Your task to perform on an android device: Open Reddit.com Image 0: 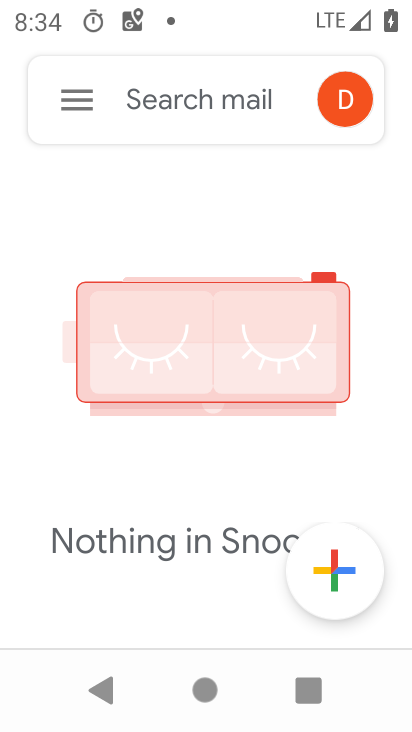
Step 0: drag from (198, 586) to (261, 163)
Your task to perform on an android device: Open Reddit.com Image 1: 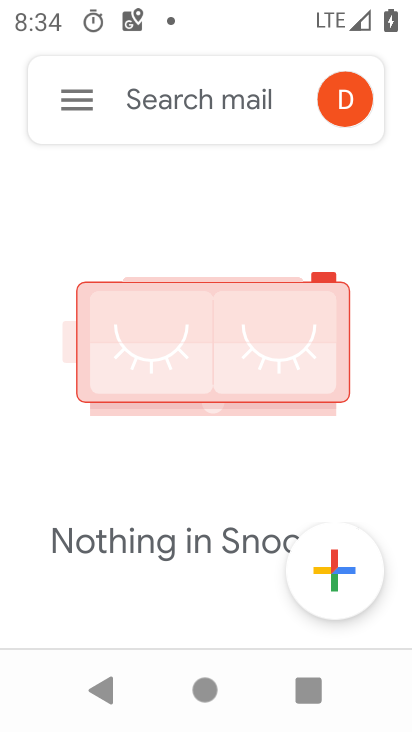
Step 1: click (189, 497)
Your task to perform on an android device: Open Reddit.com Image 2: 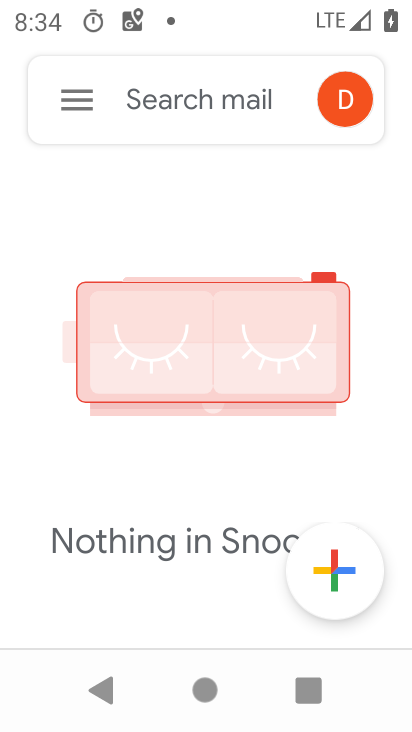
Step 2: click (184, 536)
Your task to perform on an android device: Open Reddit.com Image 3: 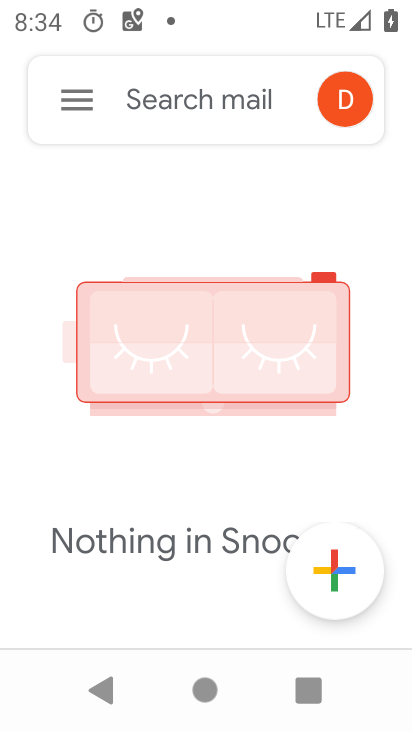
Step 3: click (77, 108)
Your task to perform on an android device: Open Reddit.com Image 4: 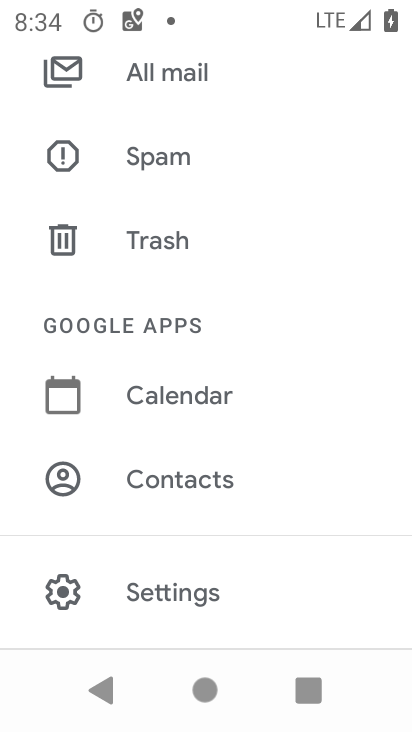
Step 4: click (210, 593)
Your task to perform on an android device: Open Reddit.com Image 5: 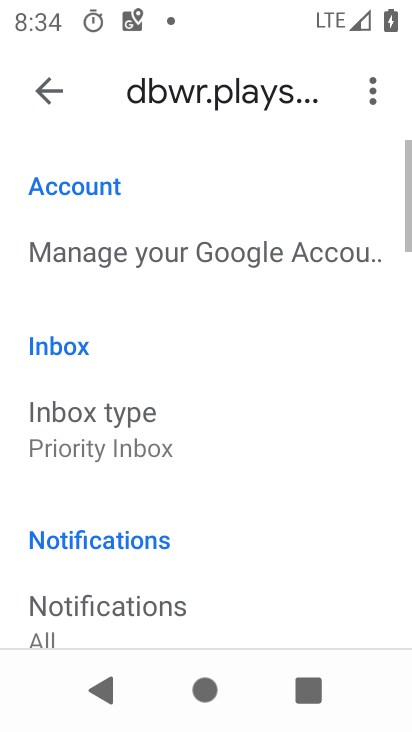
Step 5: drag from (188, 570) to (220, 198)
Your task to perform on an android device: Open Reddit.com Image 6: 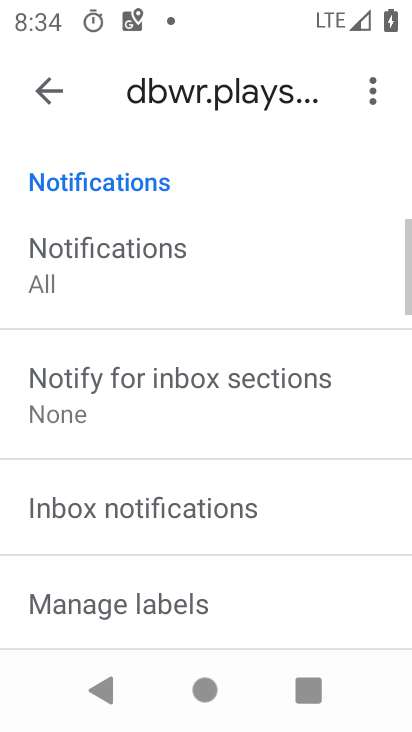
Step 6: drag from (233, 176) to (247, 620)
Your task to perform on an android device: Open Reddit.com Image 7: 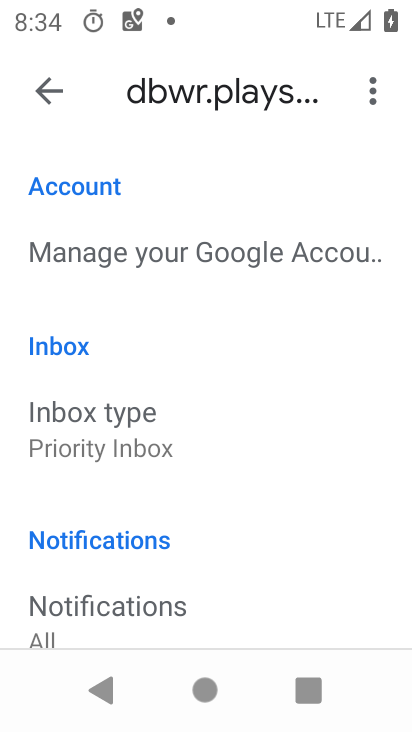
Step 7: drag from (192, 579) to (186, 94)
Your task to perform on an android device: Open Reddit.com Image 8: 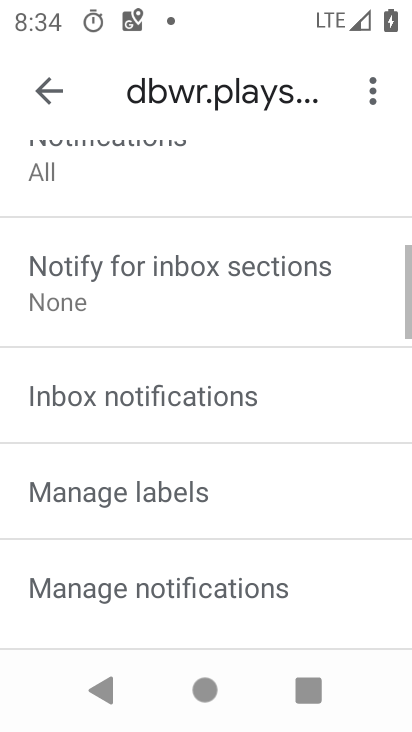
Step 8: drag from (201, 495) to (240, 211)
Your task to perform on an android device: Open Reddit.com Image 9: 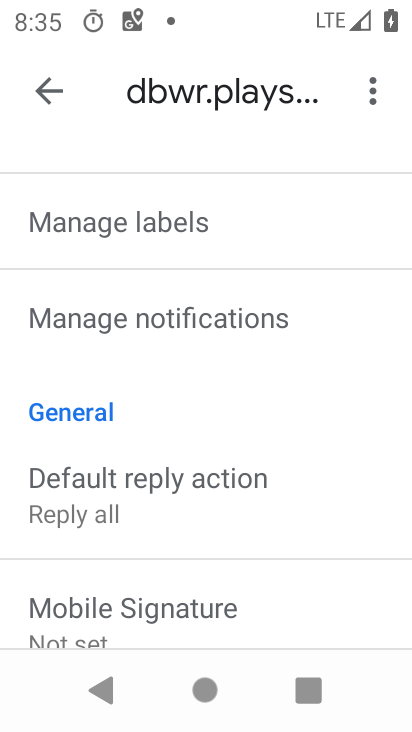
Step 9: drag from (217, 302) to (294, 706)
Your task to perform on an android device: Open Reddit.com Image 10: 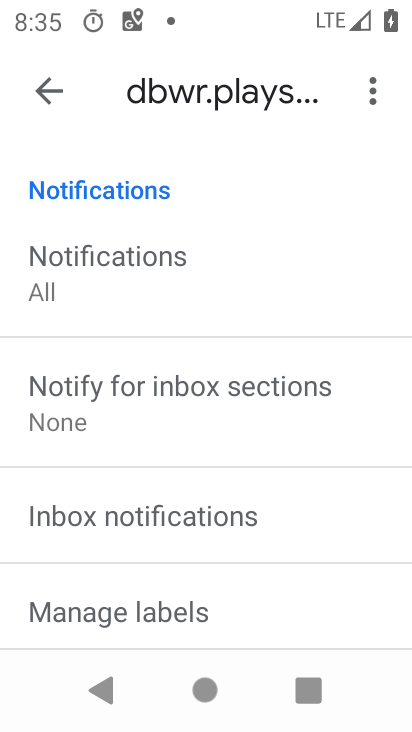
Step 10: drag from (204, 240) to (317, 624)
Your task to perform on an android device: Open Reddit.com Image 11: 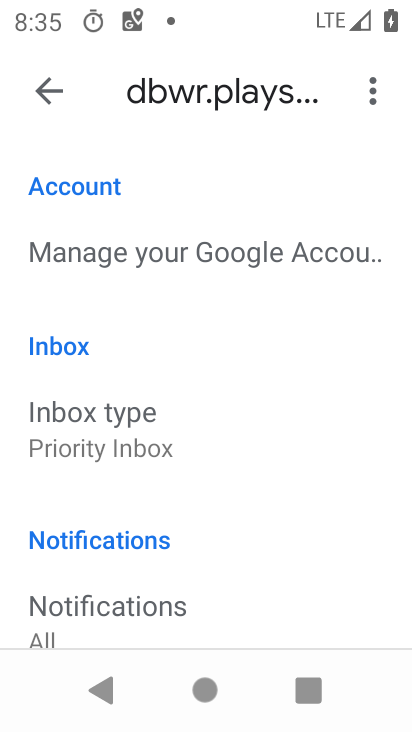
Step 11: drag from (268, 577) to (362, 286)
Your task to perform on an android device: Open Reddit.com Image 12: 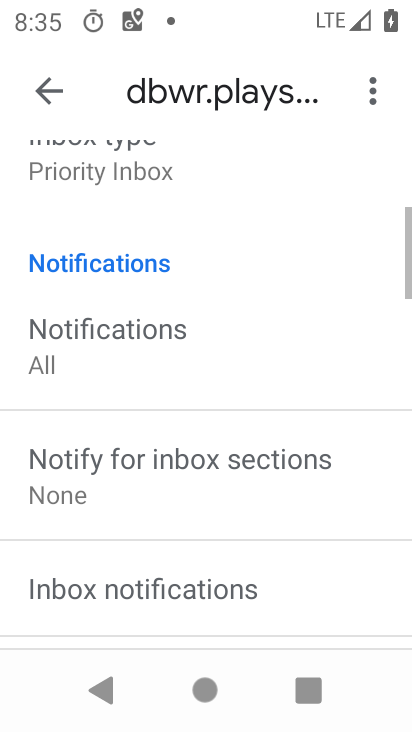
Step 12: press home button
Your task to perform on an android device: Open Reddit.com Image 13: 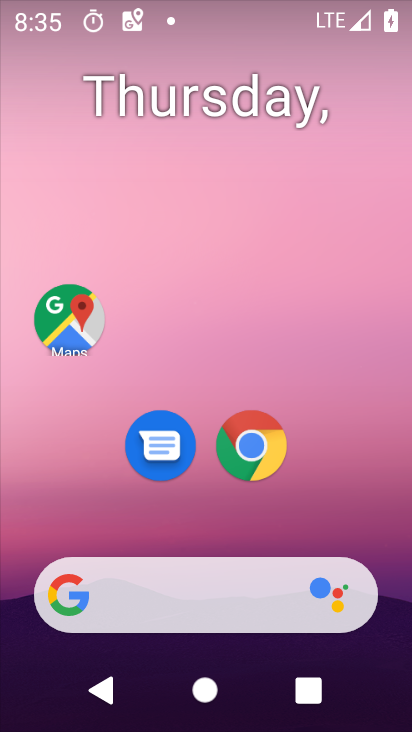
Step 13: drag from (214, 541) to (97, 27)
Your task to perform on an android device: Open Reddit.com Image 14: 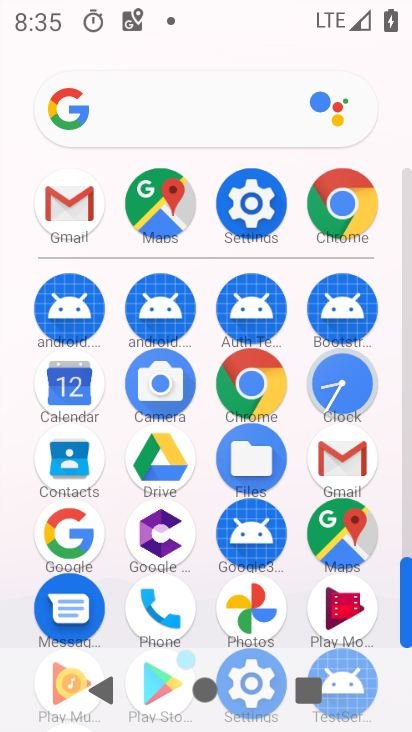
Step 14: click (200, 111)
Your task to perform on an android device: Open Reddit.com Image 15: 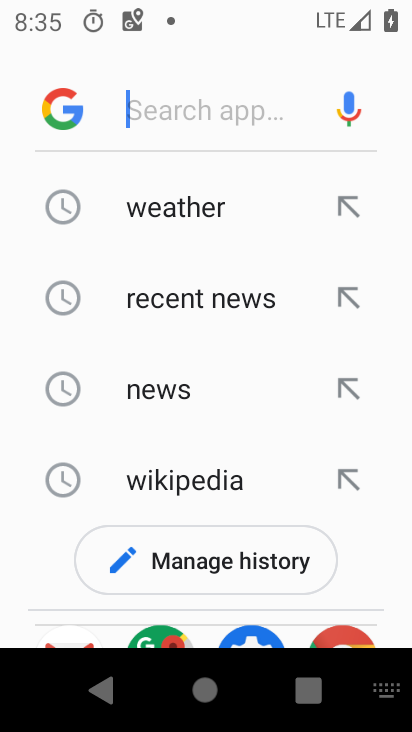
Step 15: type "reddtit.com"
Your task to perform on an android device: Open Reddit.com Image 16: 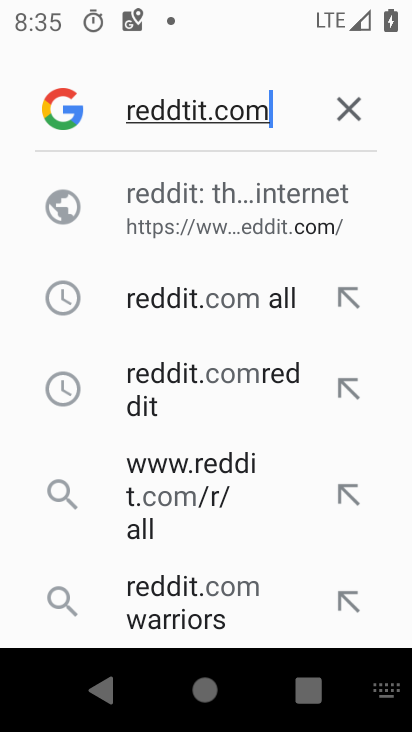
Step 16: click (191, 199)
Your task to perform on an android device: Open Reddit.com Image 17: 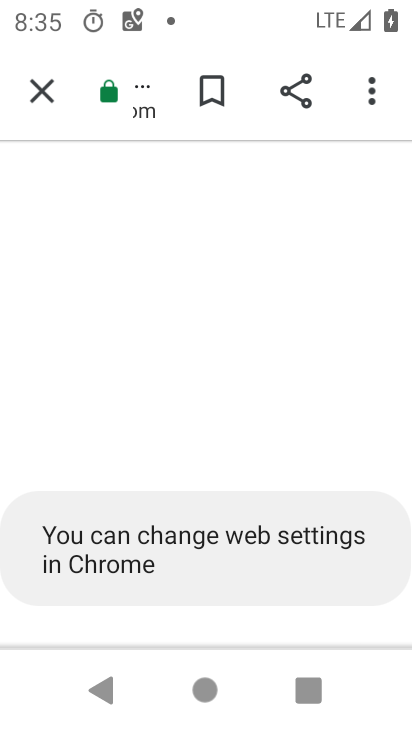
Step 17: task complete